Your task to perform on an android device: open device folders in google photos Image 0: 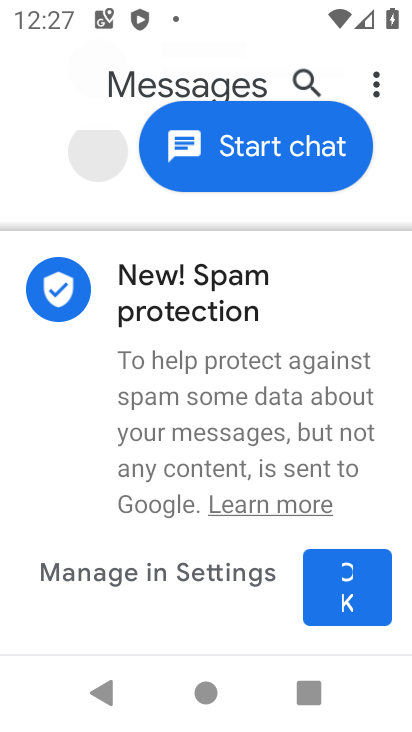
Step 0: press back button
Your task to perform on an android device: open device folders in google photos Image 1: 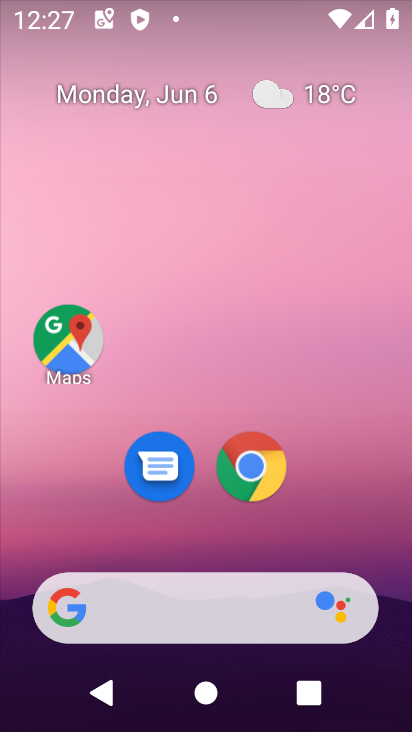
Step 1: drag from (323, 513) to (216, 35)
Your task to perform on an android device: open device folders in google photos Image 2: 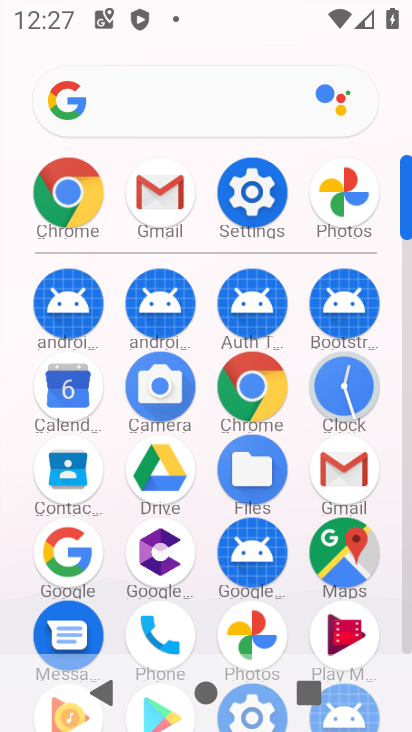
Step 2: drag from (16, 561) to (17, 258)
Your task to perform on an android device: open device folders in google photos Image 3: 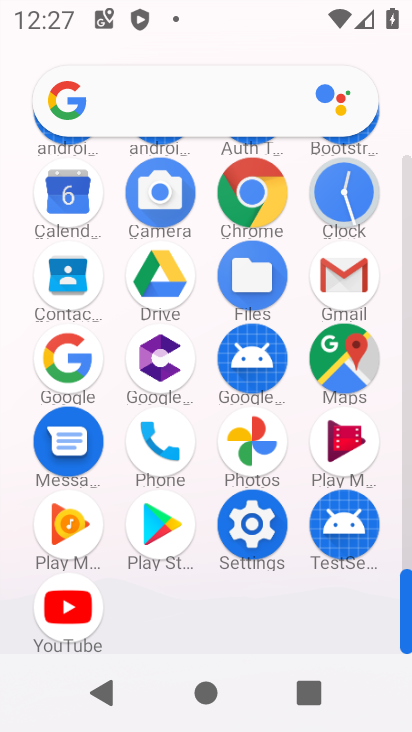
Step 3: click (253, 439)
Your task to perform on an android device: open device folders in google photos Image 4: 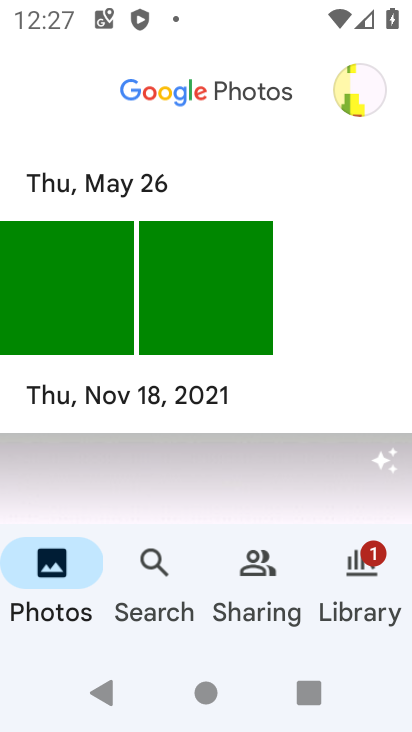
Step 4: click (365, 580)
Your task to perform on an android device: open device folders in google photos Image 5: 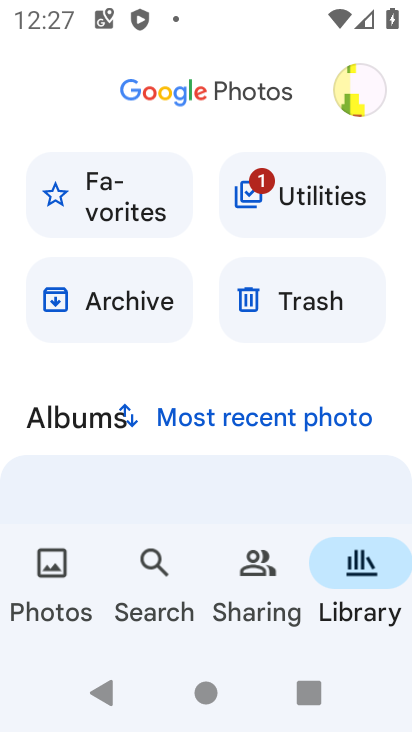
Step 5: click (362, 95)
Your task to perform on an android device: open device folders in google photos Image 6: 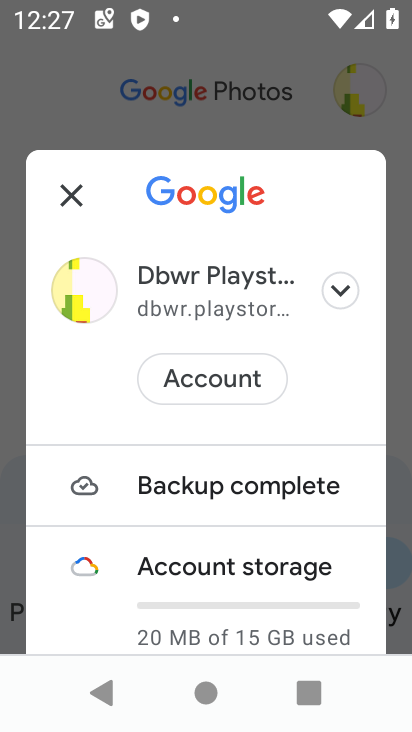
Step 6: drag from (264, 527) to (276, 192)
Your task to perform on an android device: open device folders in google photos Image 7: 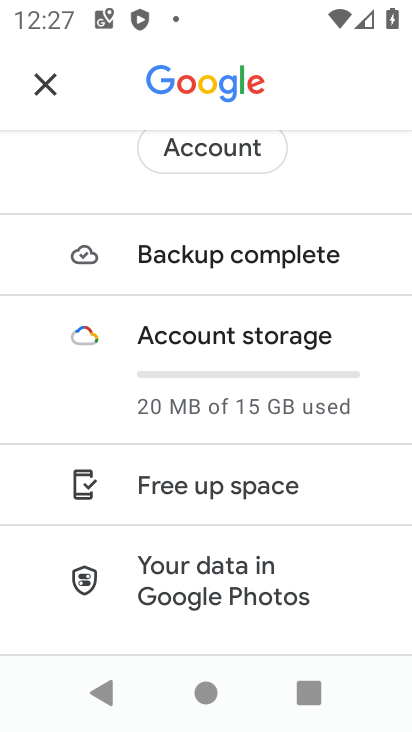
Step 7: drag from (271, 555) to (288, 158)
Your task to perform on an android device: open device folders in google photos Image 8: 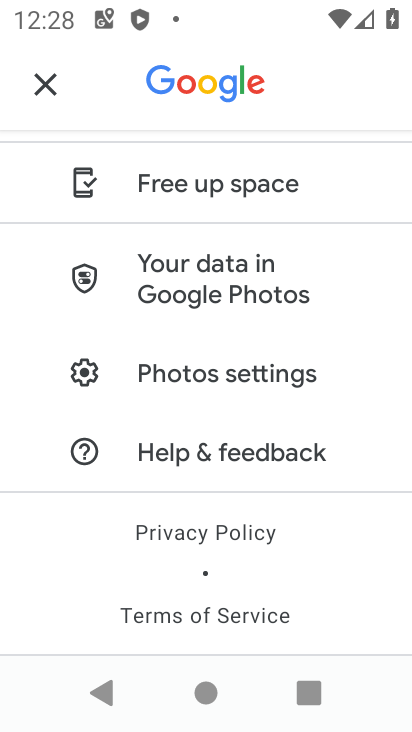
Step 8: click (225, 374)
Your task to perform on an android device: open device folders in google photos Image 9: 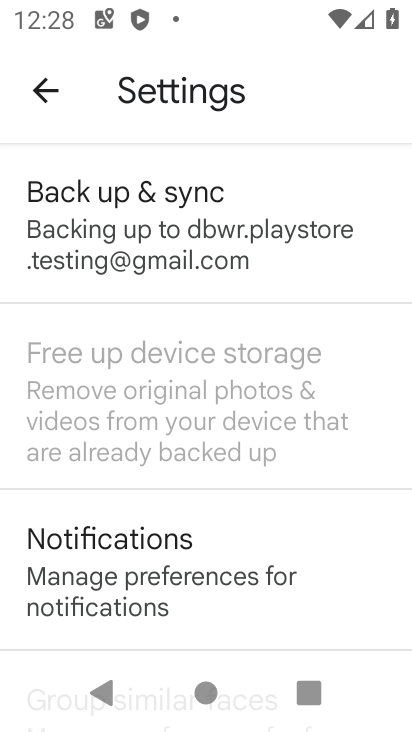
Step 9: drag from (222, 573) to (243, 191)
Your task to perform on an android device: open device folders in google photos Image 10: 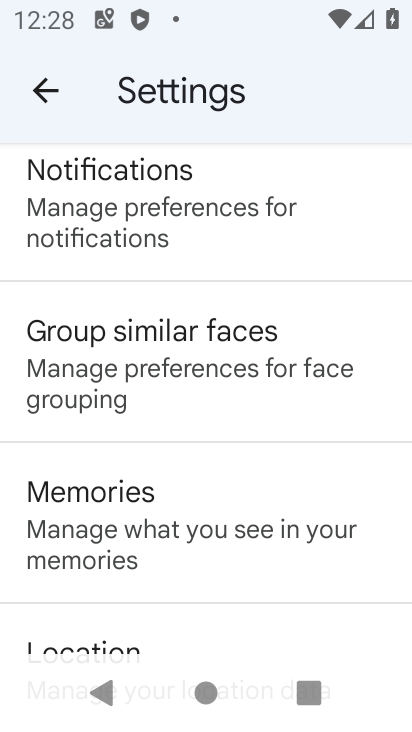
Step 10: drag from (232, 543) to (241, 230)
Your task to perform on an android device: open device folders in google photos Image 11: 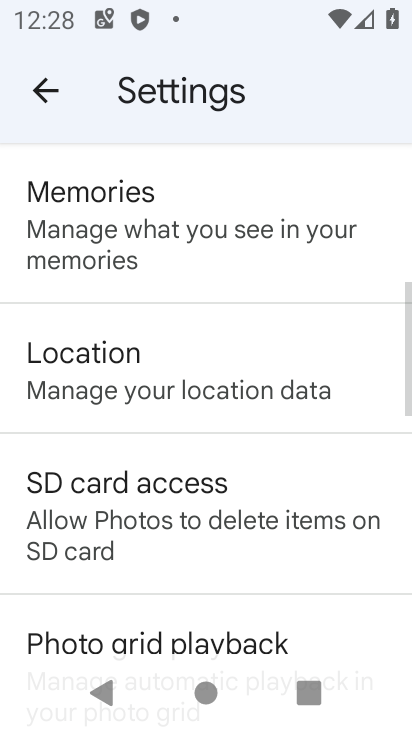
Step 11: drag from (243, 223) to (245, 607)
Your task to perform on an android device: open device folders in google photos Image 12: 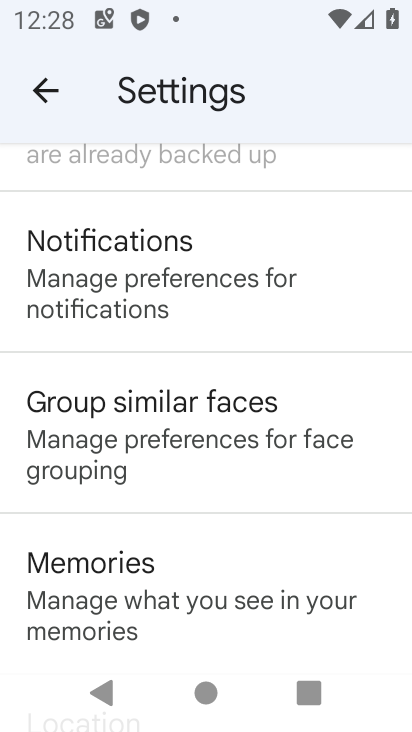
Step 12: drag from (258, 229) to (255, 546)
Your task to perform on an android device: open device folders in google photos Image 13: 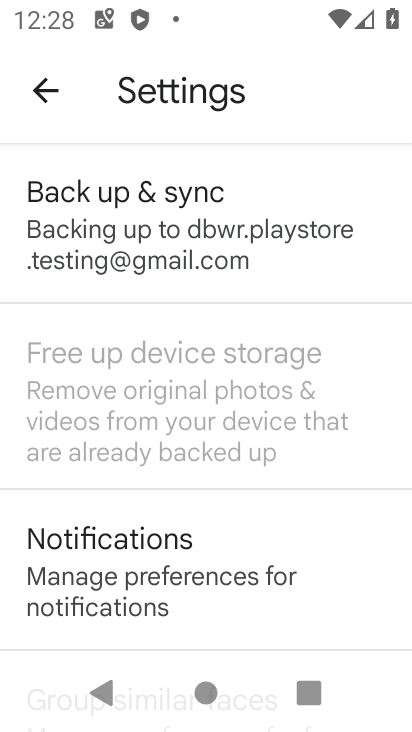
Step 13: click (251, 233)
Your task to perform on an android device: open device folders in google photos Image 14: 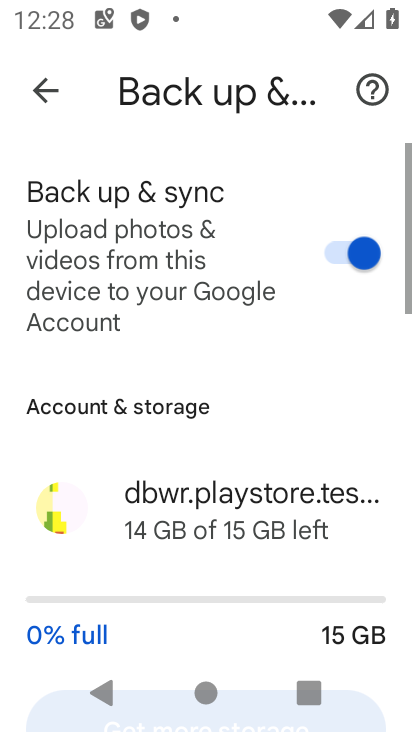
Step 14: drag from (211, 562) to (224, 201)
Your task to perform on an android device: open device folders in google photos Image 15: 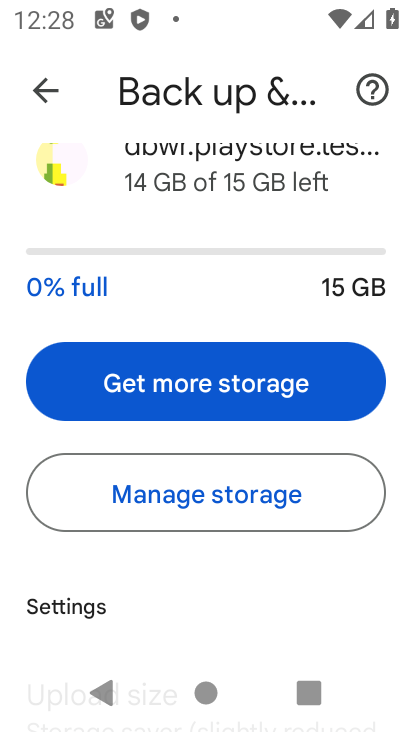
Step 15: drag from (231, 552) to (244, 198)
Your task to perform on an android device: open device folders in google photos Image 16: 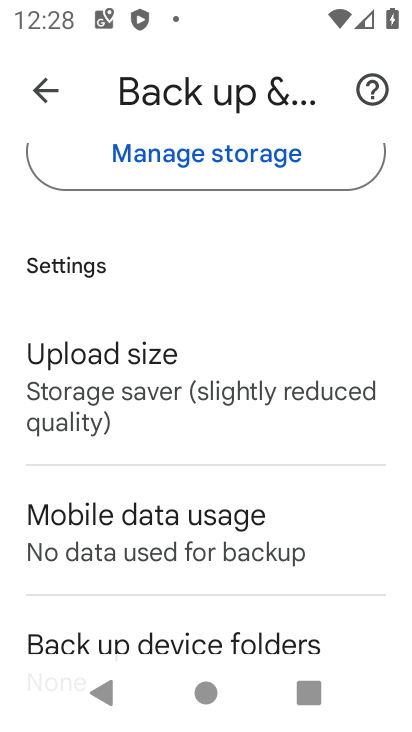
Step 16: click (45, 81)
Your task to perform on an android device: open device folders in google photos Image 17: 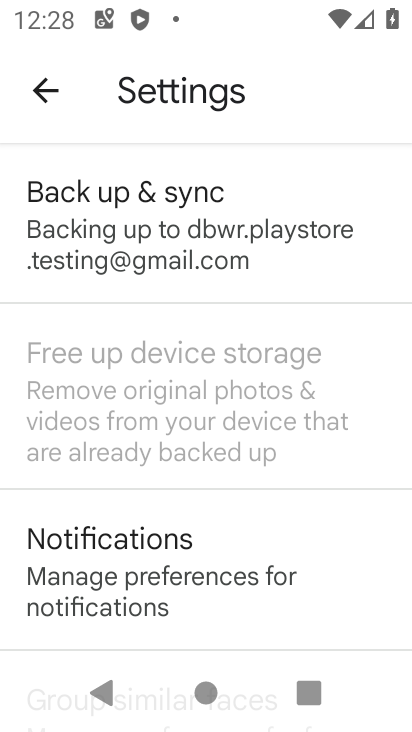
Step 17: drag from (247, 544) to (289, 153)
Your task to perform on an android device: open device folders in google photos Image 18: 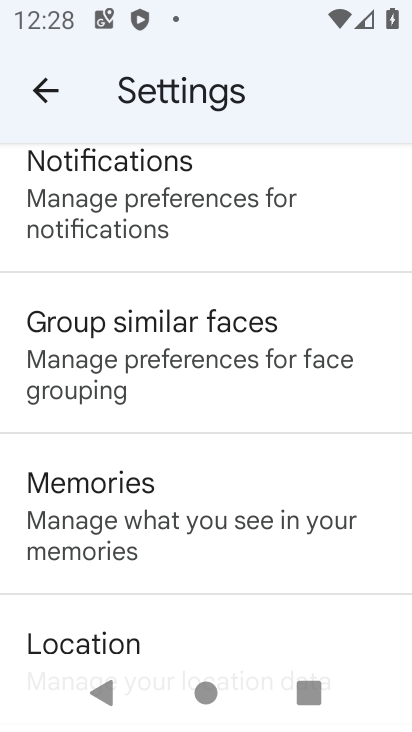
Step 18: drag from (250, 510) to (247, 151)
Your task to perform on an android device: open device folders in google photos Image 19: 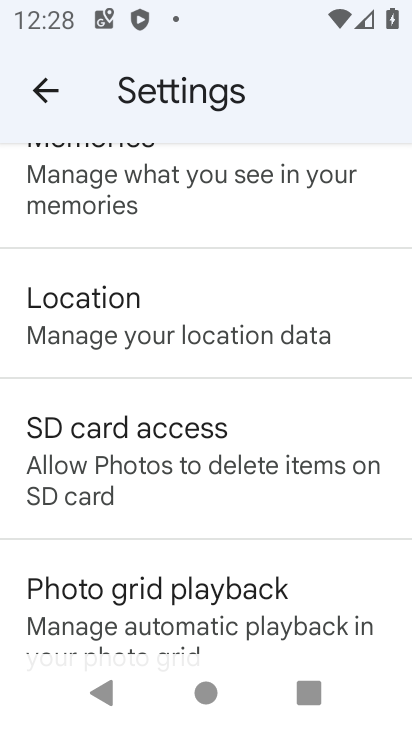
Step 19: drag from (221, 491) to (241, 173)
Your task to perform on an android device: open device folders in google photos Image 20: 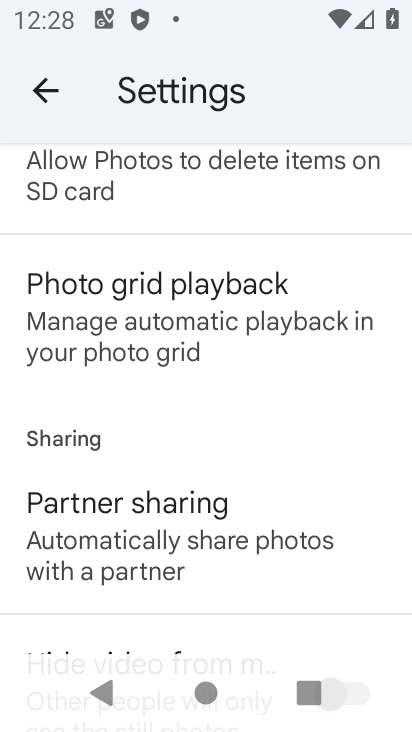
Step 20: drag from (217, 545) to (246, 175)
Your task to perform on an android device: open device folders in google photos Image 21: 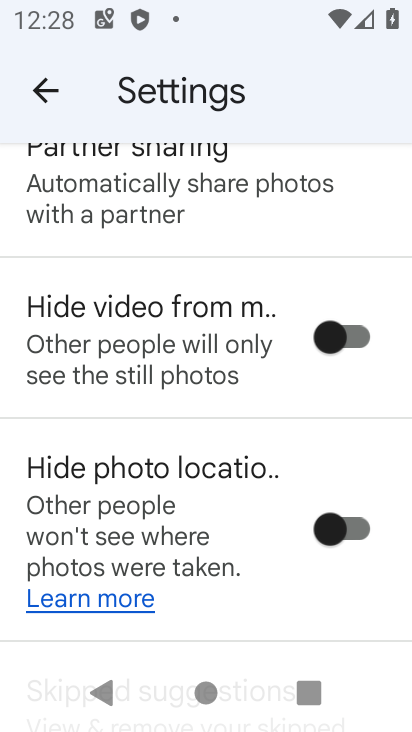
Step 21: drag from (193, 537) to (243, 170)
Your task to perform on an android device: open device folders in google photos Image 22: 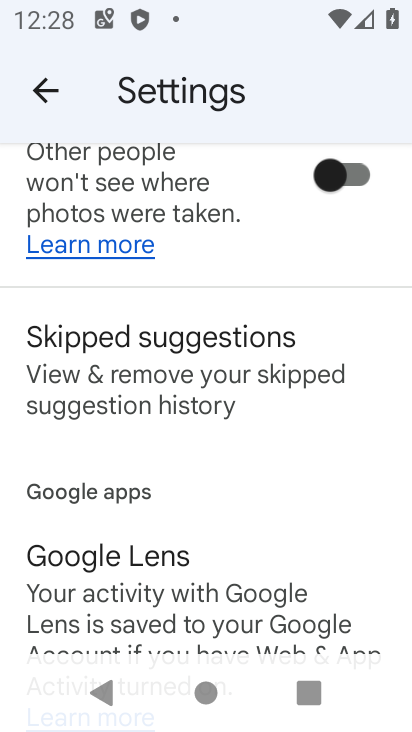
Step 22: drag from (192, 566) to (196, 135)
Your task to perform on an android device: open device folders in google photos Image 23: 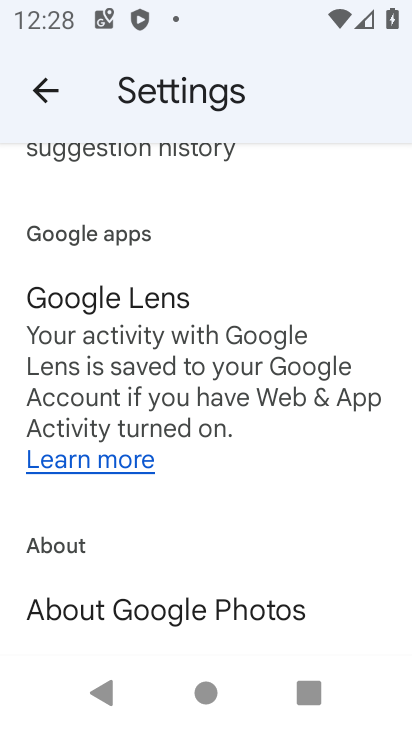
Step 23: click (30, 81)
Your task to perform on an android device: open device folders in google photos Image 24: 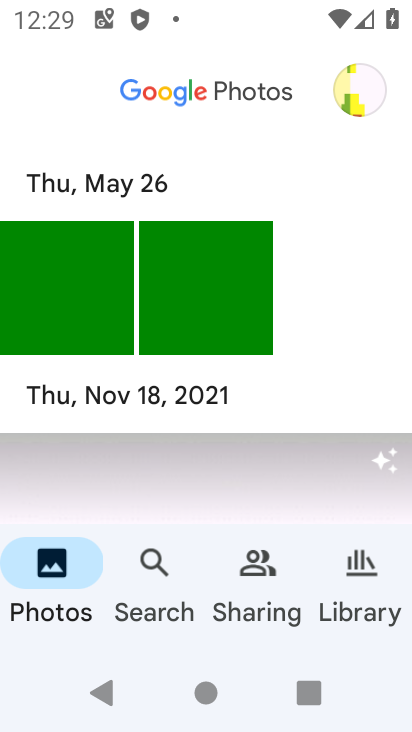
Step 24: click (364, 595)
Your task to perform on an android device: open device folders in google photos Image 25: 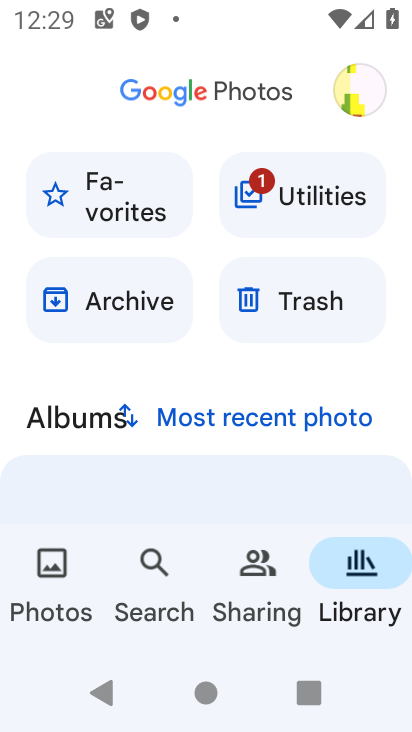
Step 25: drag from (179, 525) to (153, 168)
Your task to perform on an android device: open device folders in google photos Image 26: 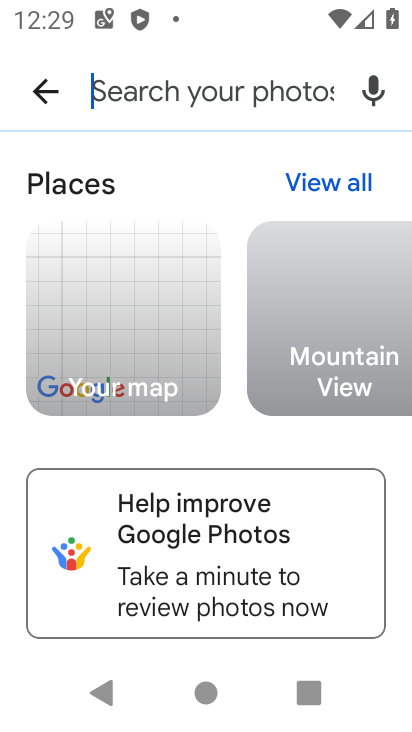
Step 26: click (46, 102)
Your task to perform on an android device: open device folders in google photos Image 27: 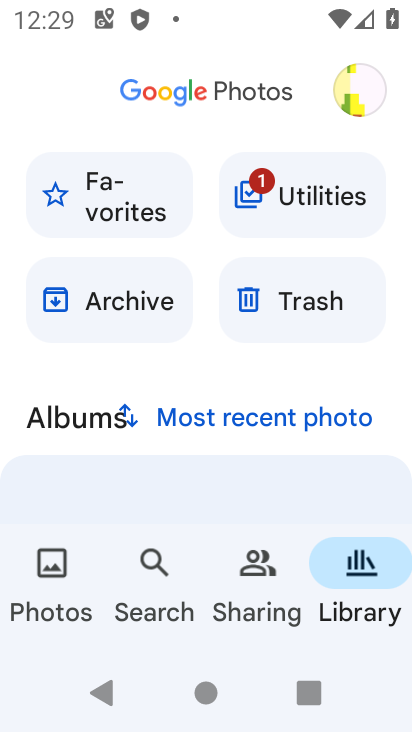
Step 27: task complete